Your task to perform on an android device: Open Google Chrome and click the shortcut for Amazon.com Image 0: 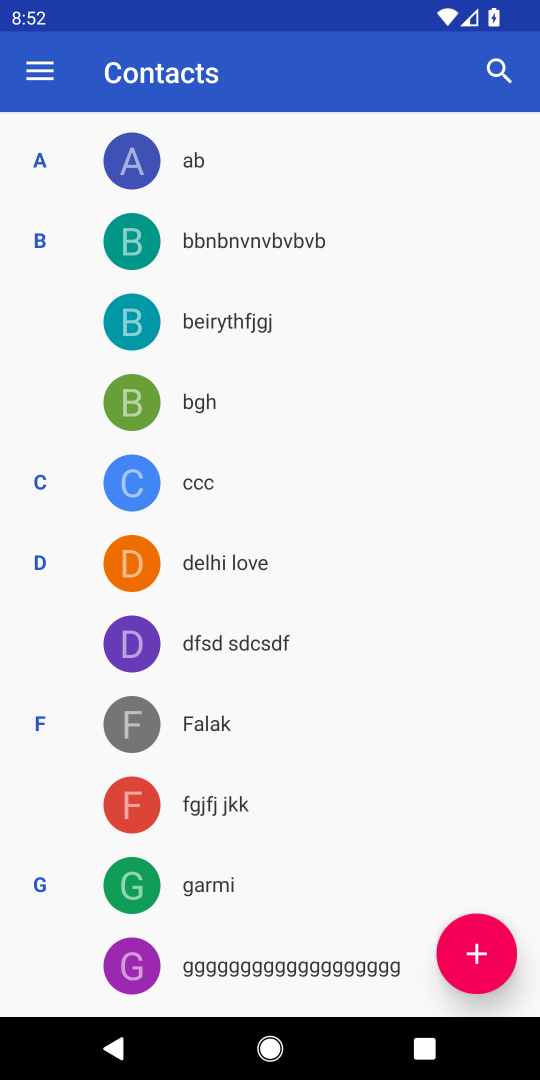
Step 0: press home button
Your task to perform on an android device: Open Google Chrome and click the shortcut for Amazon.com Image 1: 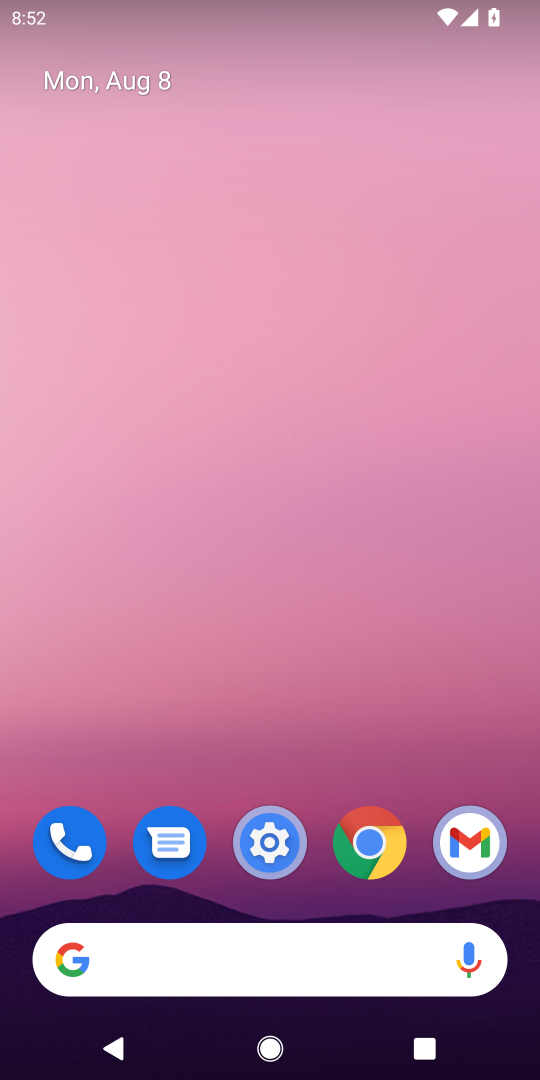
Step 1: click (364, 842)
Your task to perform on an android device: Open Google Chrome and click the shortcut for Amazon.com Image 2: 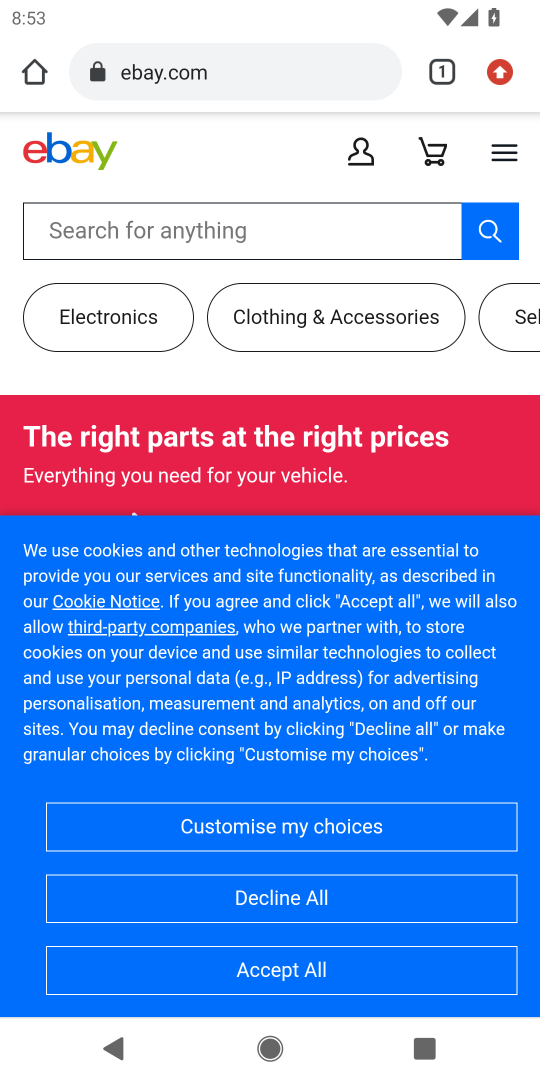
Step 2: click (503, 71)
Your task to perform on an android device: Open Google Chrome and click the shortcut for Amazon.com Image 3: 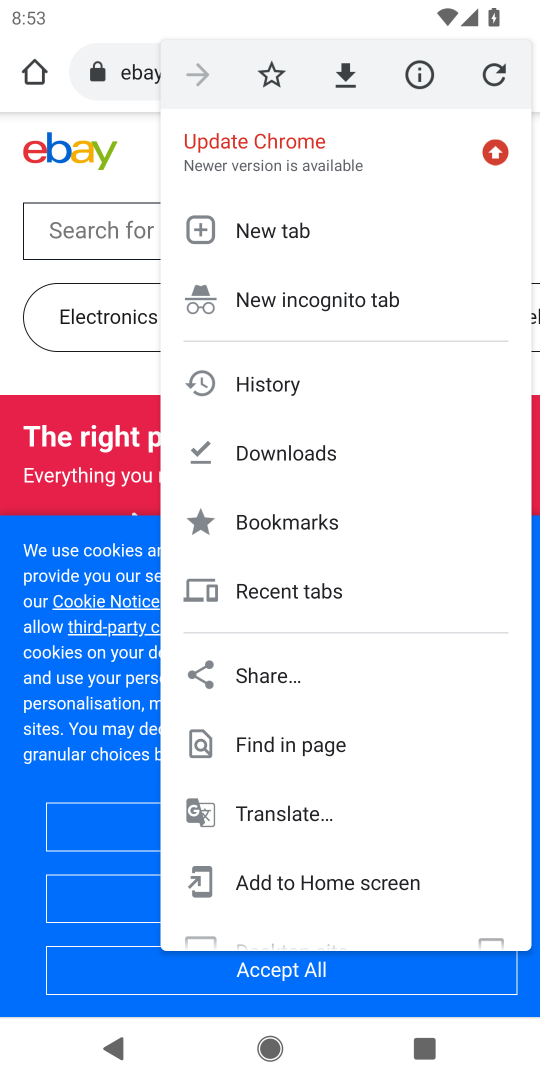
Step 3: click (248, 220)
Your task to perform on an android device: Open Google Chrome and click the shortcut for Amazon.com Image 4: 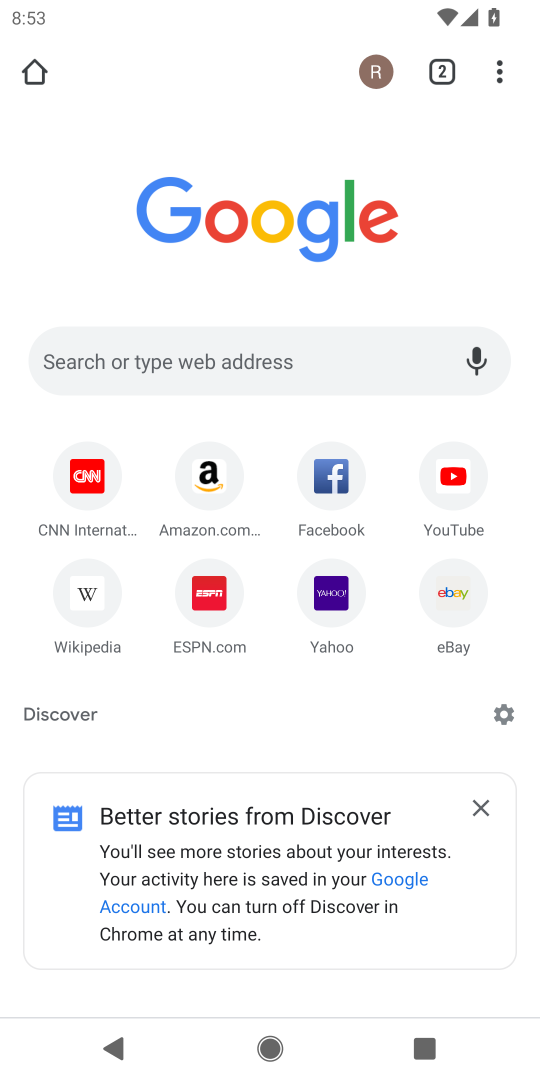
Step 4: click (182, 483)
Your task to perform on an android device: Open Google Chrome and click the shortcut for Amazon.com Image 5: 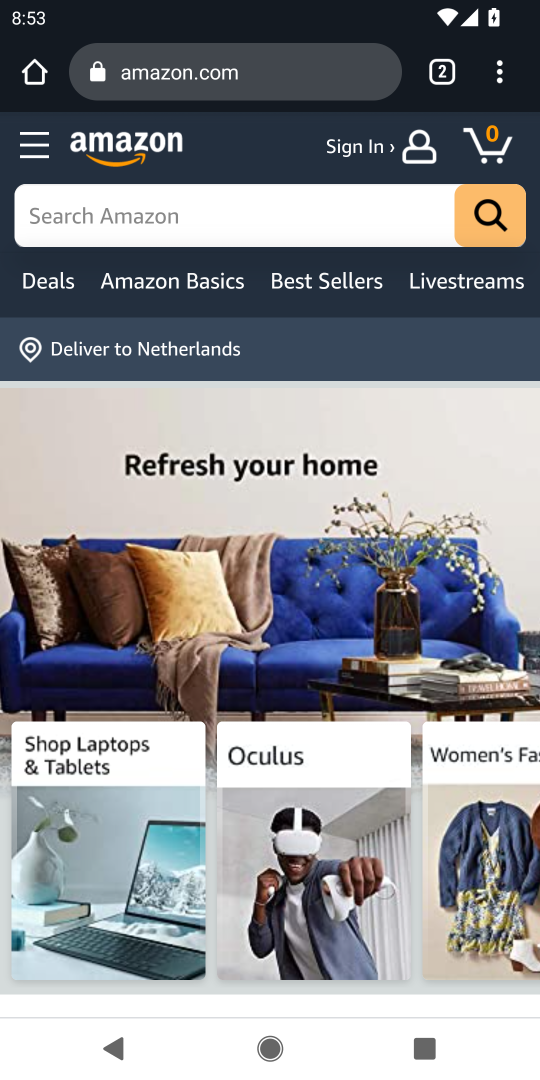
Step 5: task complete